Your task to perform on an android device: make emails show in primary in the gmail app Image 0: 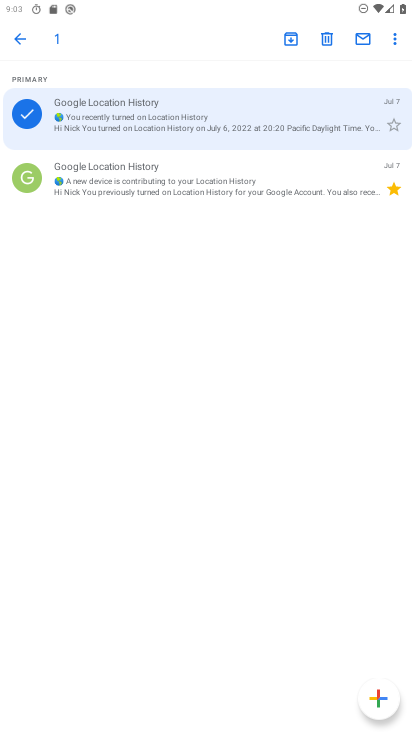
Step 0: press home button
Your task to perform on an android device: make emails show in primary in the gmail app Image 1: 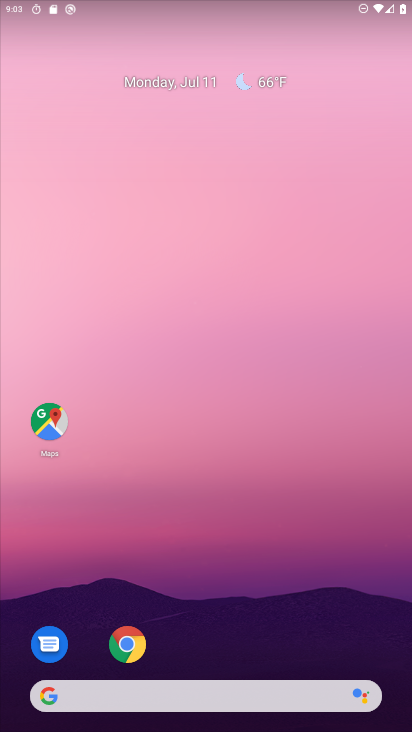
Step 1: drag from (344, 612) to (294, 191)
Your task to perform on an android device: make emails show in primary in the gmail app Image 2: 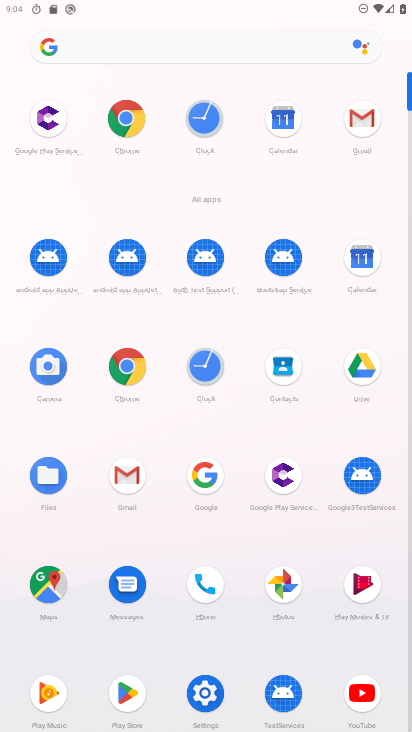
Step 2: click (362, 121)
Your task to perform on an android device: make emails show in primary in the gmail app Image 3: 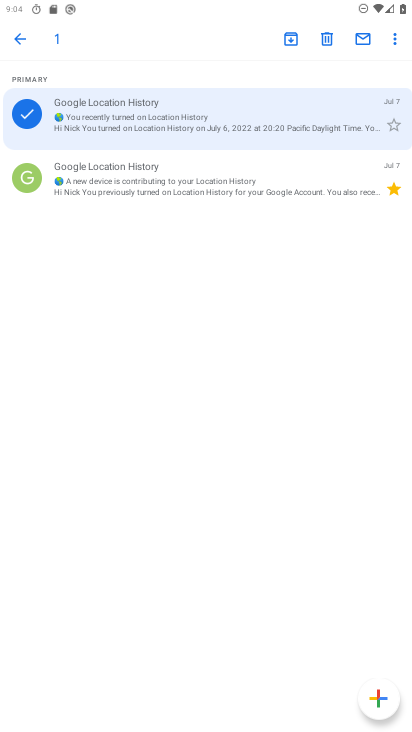
Step 3: click (30, 35)
Your task to perform on an android device: make emails show in primary in the gmail app Image 4: 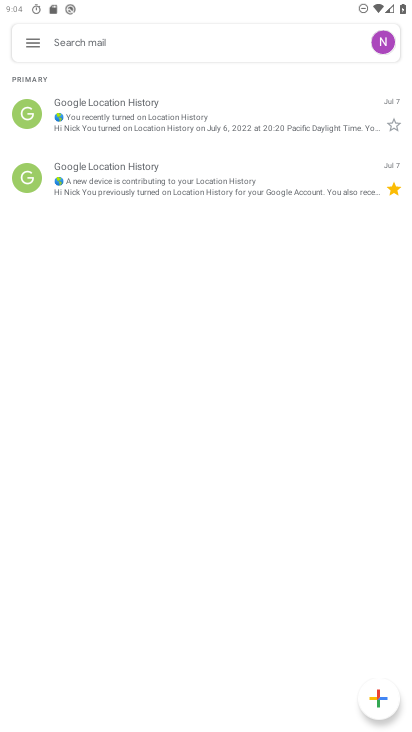
Step 4: drag from (376, 38) to (101, 51)
Your task to perform on an android device: make emails show in primary in the gmail app Image 5: 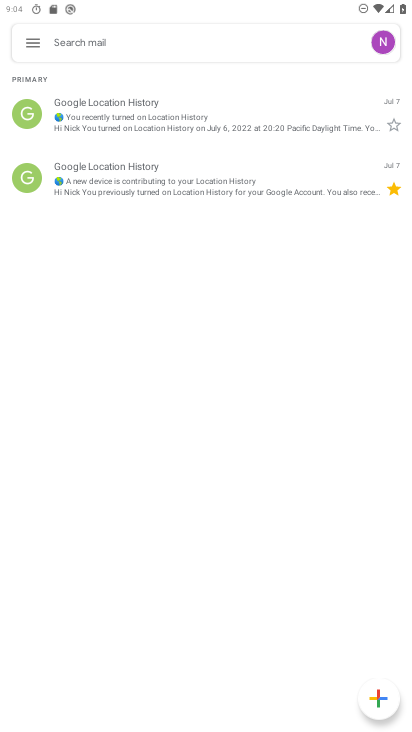
Step 5: click (41, 38)
Your task to perform on an android device: make emails show in primary in the gmail app Image 6: 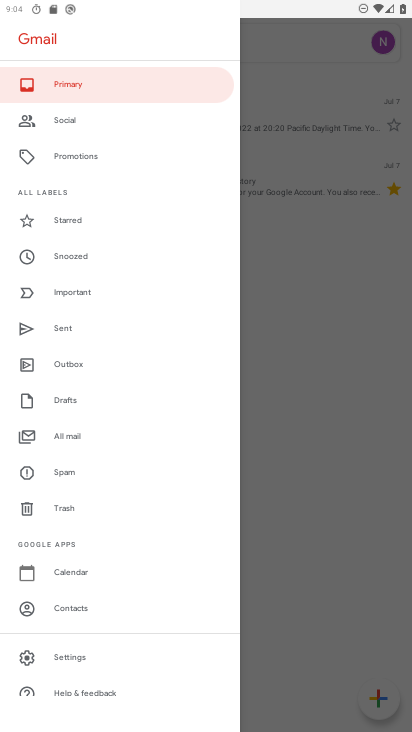
Step 6: click (73, 657)
Your task to perform on an android device: make emails show in primary in the gmail app Image 7: 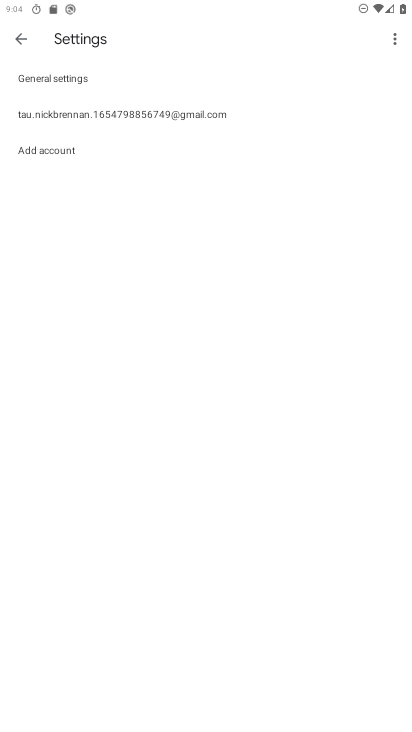
Step 7: click (195, 116)
Your task to perform on an android device: make emails show in primary in the gmail app Image 8: 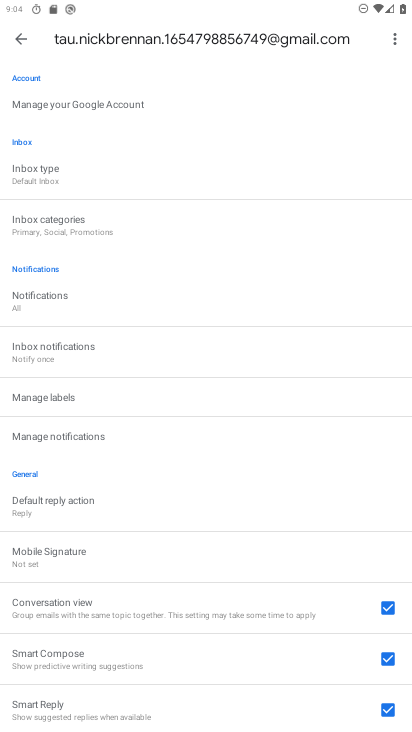
Step 8: click (45, 170)
Your task to perform on an android device: make emails show in primary in the gmail app Image 9: 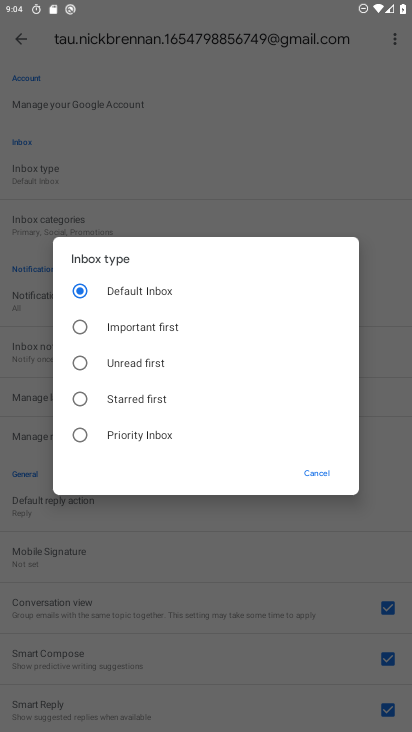
Step 9: click (319, 471)
Your task to perform on an android device: make emails show in primary in the gmail app Image 10: 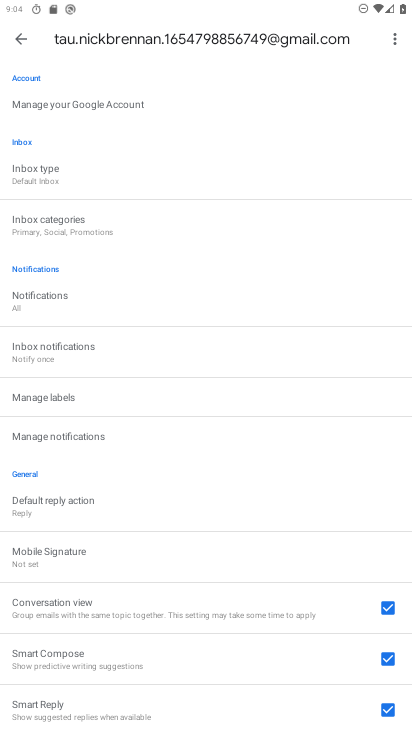
Step 10: click (39, 219)
Your task to perform on an android device: make emails show in primary in the gmail app Image 11: 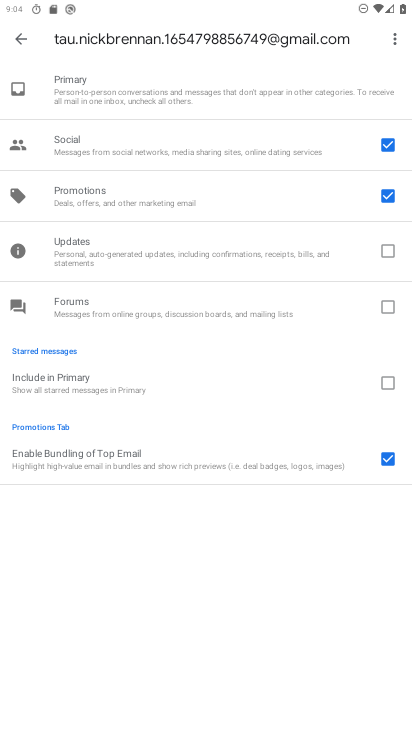
Step 11: task complete